Your task to perform on an android device: Go to Yahoo.com Image 0: 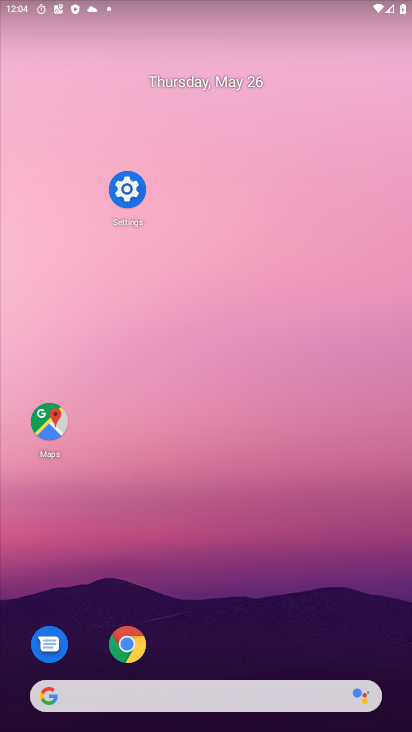
Step 0: drag from (248, 635) to (263, 71)
Your task to perform on an android device: Go to Yahoo.com Image 1: 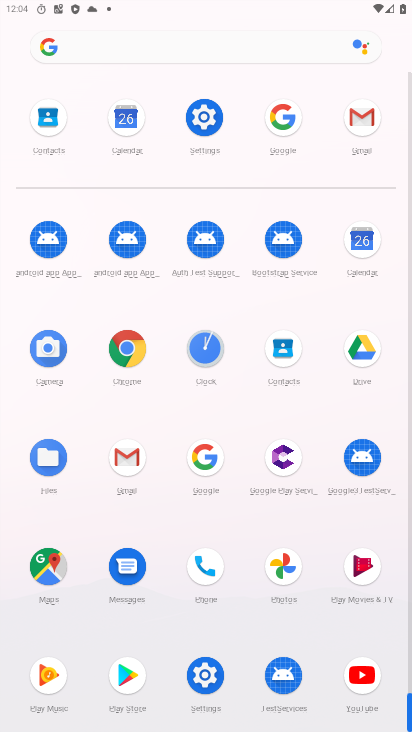
Step 1: drag from (205, 463) to (209, 413)
Your task to perform on an android device: Go to Yahoo.com Image 2: 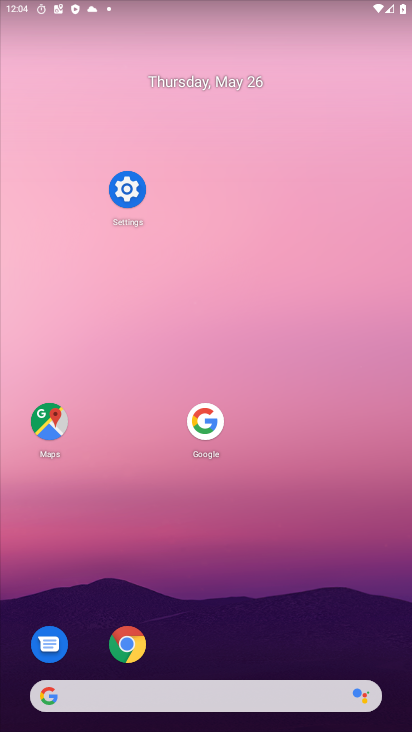
Step 2: click (128, 645)
Your task to perform on an android device: Go to Yahoo.com Image 3: 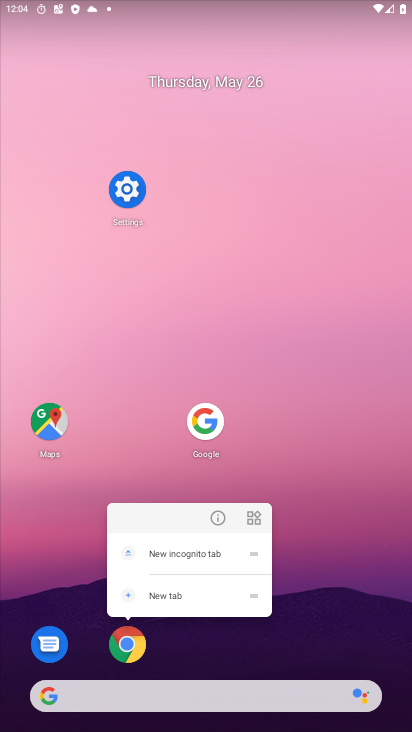
Step 3: click (128, 645)
Your task to perform on an android device: Go to Yahoo.com Image 4: 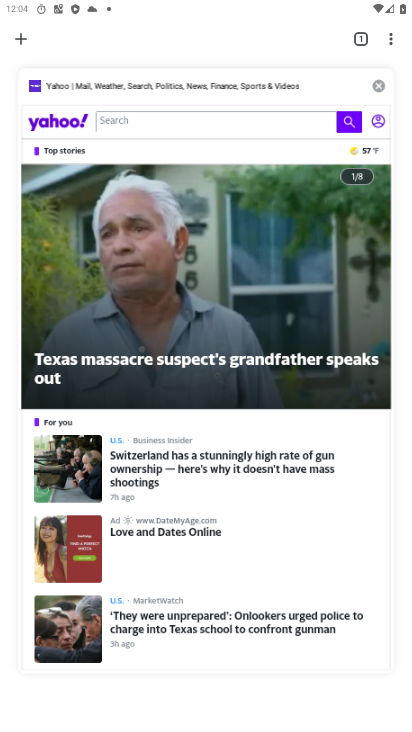
Step 4: task complete